Your task to perform on an android device: turn pop-ups off in chrome Image 0: 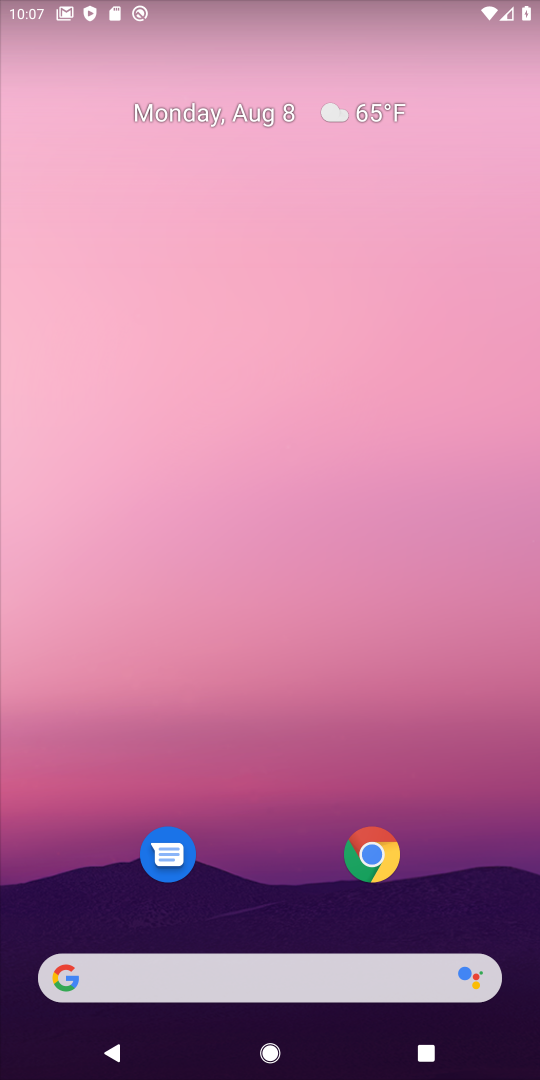
Step 0: click (382, 850)
Your task to perform on an android device: turn pop-ups off in chrome Image 1: 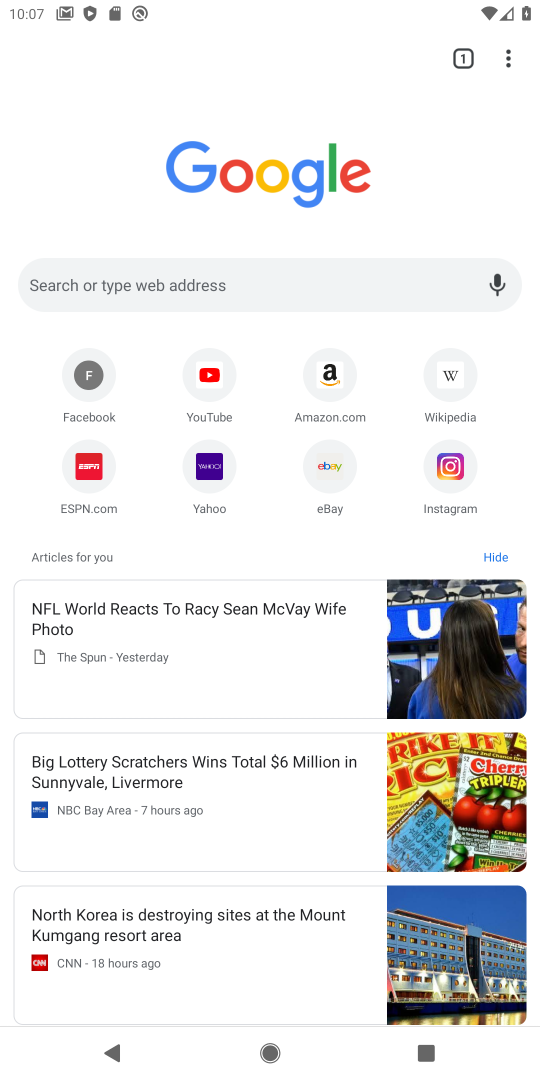
Step 1: click (515, 66)
Your task to perform on an android device: turn pop-ups off in chrome Image 2: 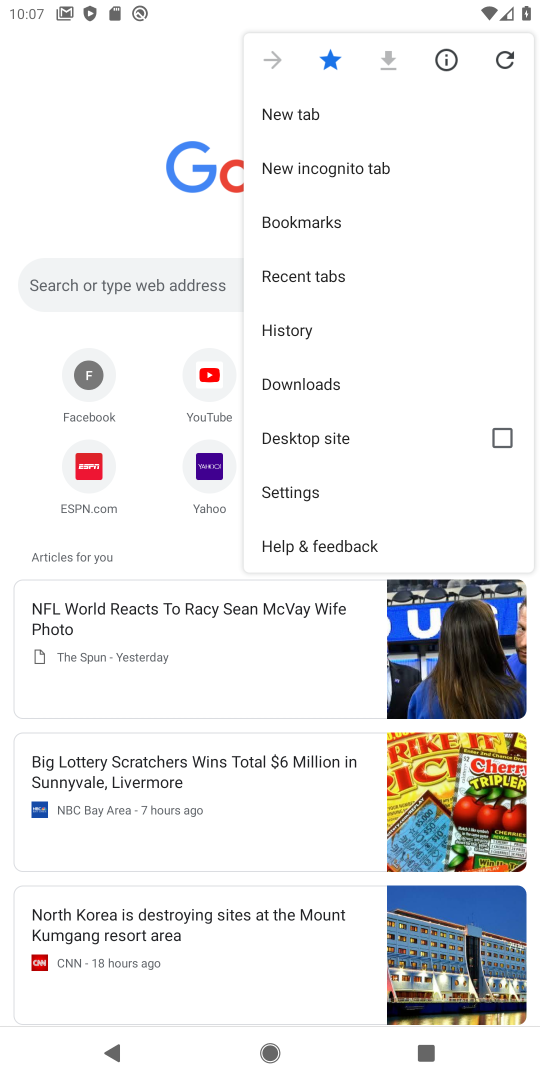
Step 2: click (319, 507)
Your task to perform on an android device: turn pop-ups off in chrome Image 3: 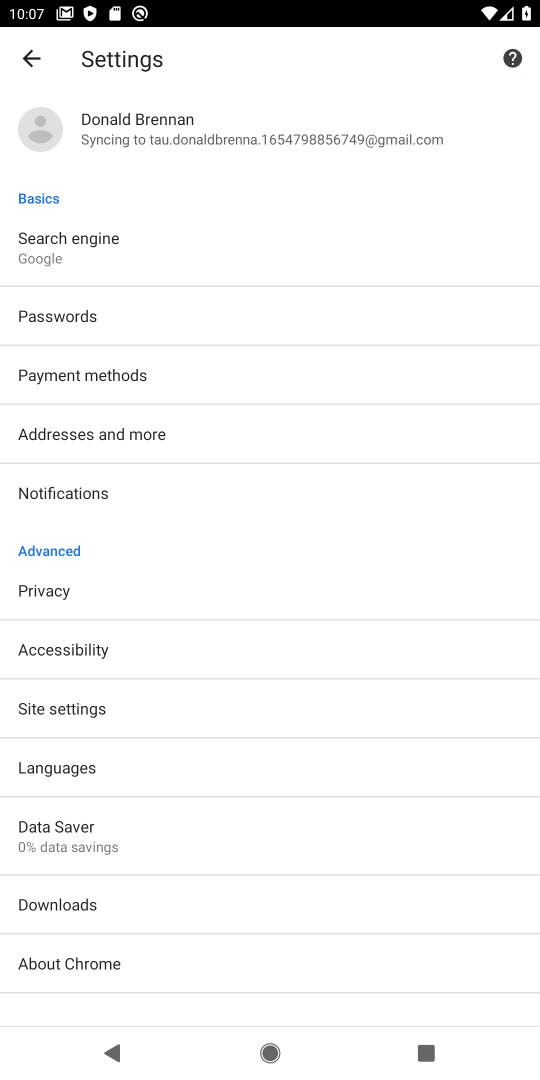
Step 3: click (102, 708)
Your task to perform on an android device: turn pop-ups off in chrome Image 4: 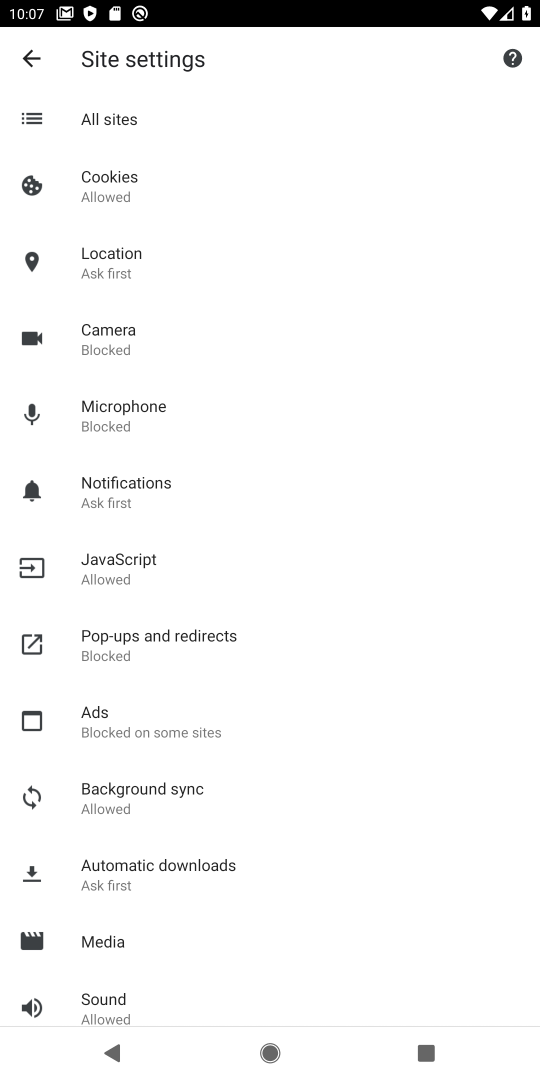
Step 4: click (195, 640)
Your task to perform on an android device: turn pop-ups off in chrome Image 5: 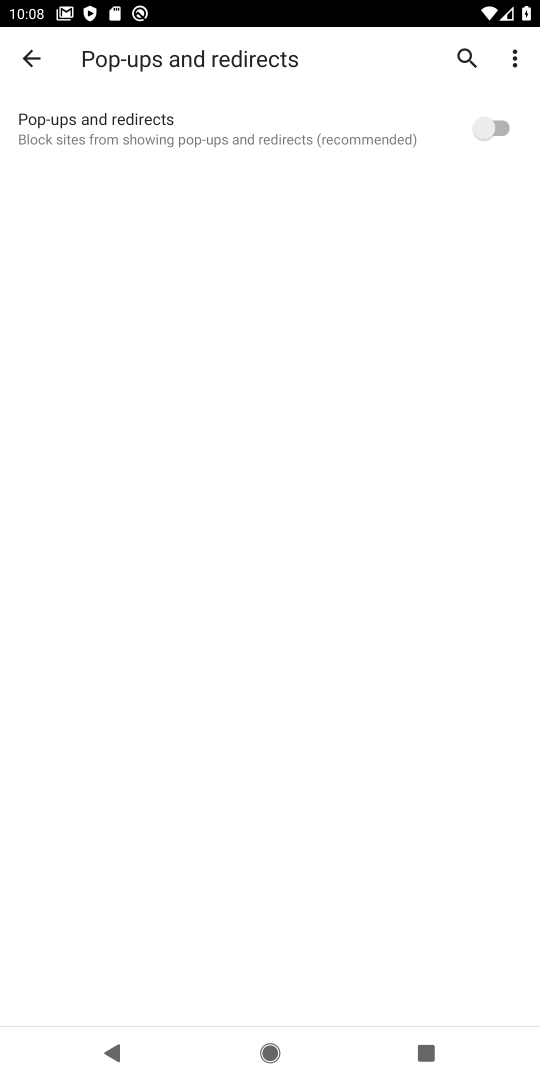
Step 5: task complete